Your task to perform on an android device: Go to CNN.com Image 0: 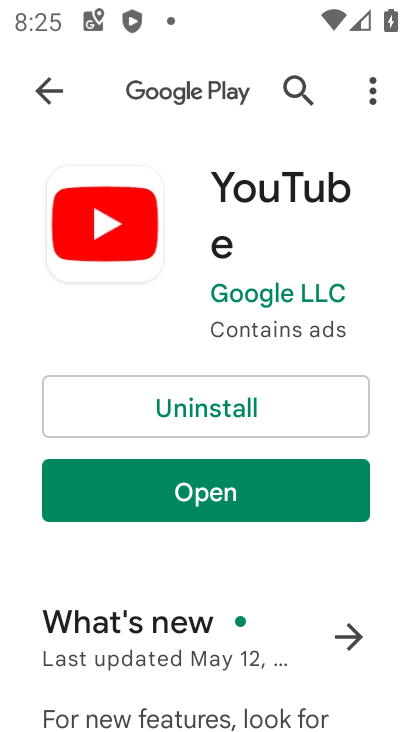
Step 0: press home button
Your task to perform on an android device: Go to CNN.com Image 1: 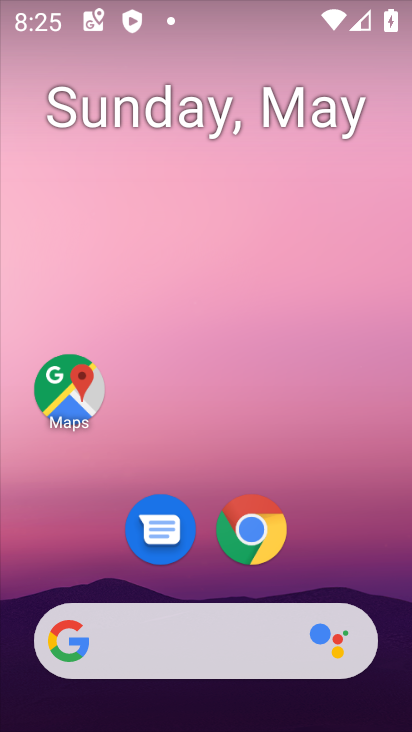
Step 1: click (254, 531)
Your task to perform on an android device: Go to CNN.com Image 2: 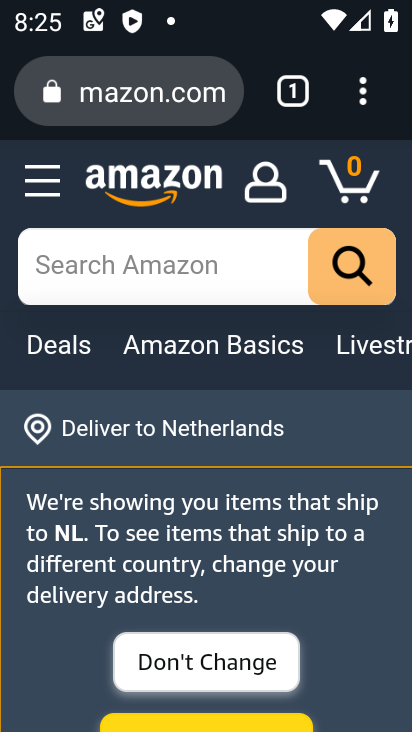
Step 2: click (87, 97)
Your task to perform on an android device: Go to CNN.com Image 3: 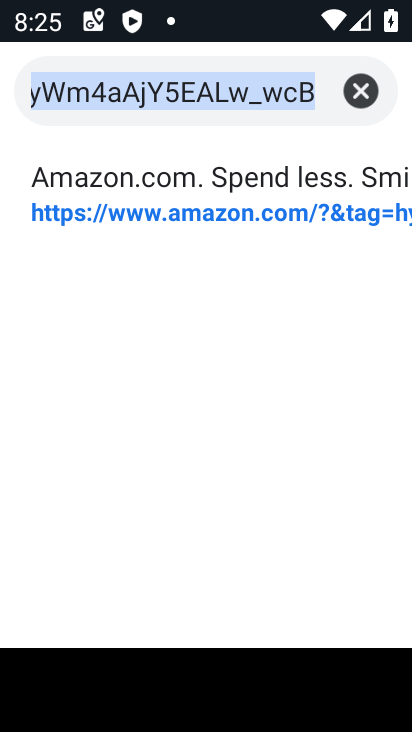
Step 3: click (83, 99)
Your task to perform on an android device: Go to CNN.com Image 4: 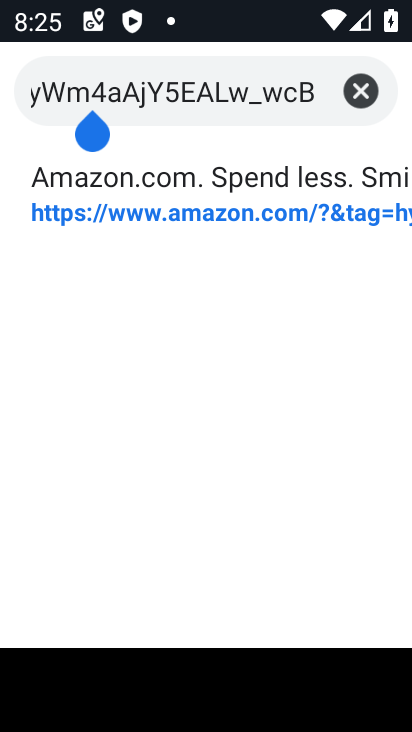
Step 4: click (350, 92)
Your task to perform on an android device: Go to CNN.com Image 5: 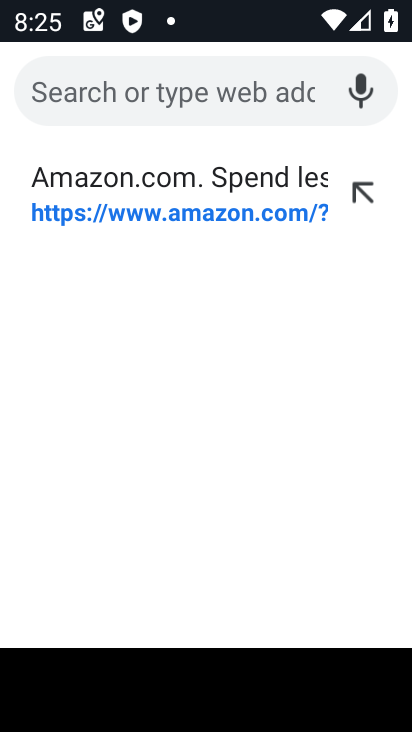
Step 5: click (174, 87)
Your task to perform on an android device: Go to CNN.com Image 6: 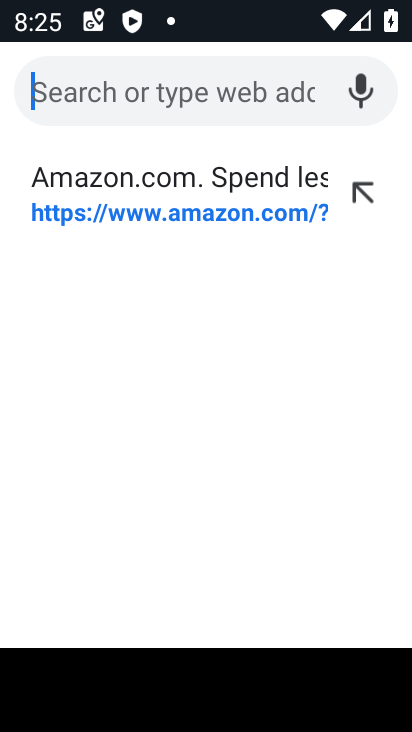
Step 6: type "cnn.com"
Your task to perform on an android device: Go to CNN.com Image 7: 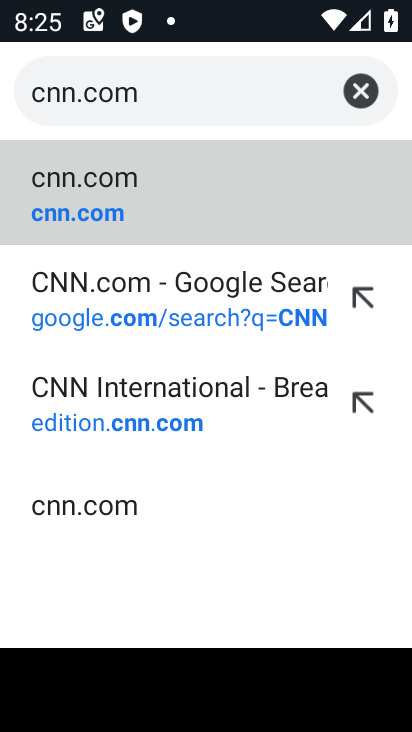
Step 7: click (71, 202)
Your task to perform on an android device: Go to CNN.com Image 8: 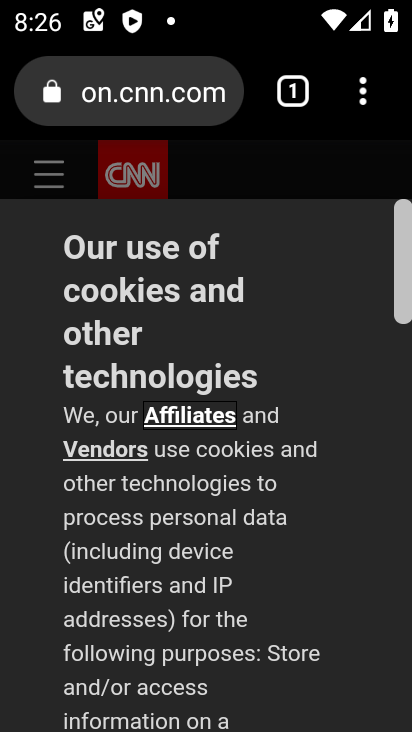
Step 8: task complete